Your task to perform on an android device: create a new album in the google photos Image 0: 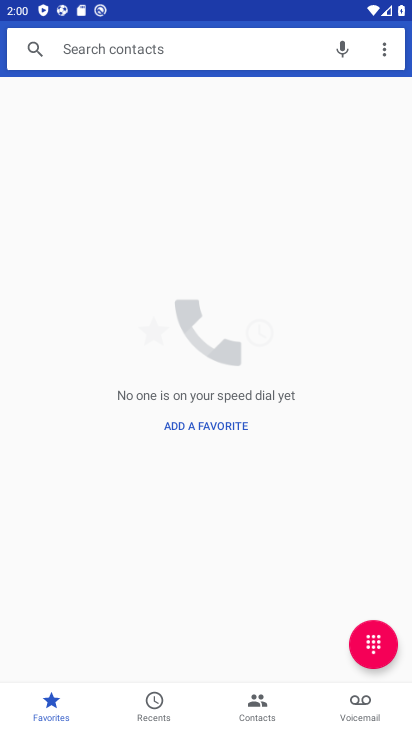
Step 0: press home button
Your task to perform on an android device: create a new album in the google photos Image 1: 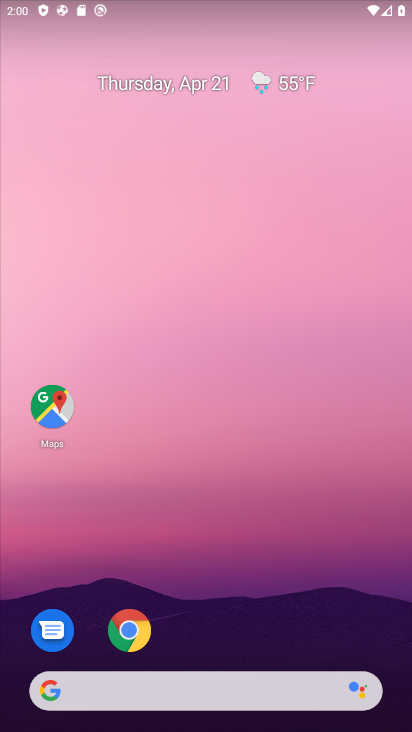
Step 1: drag from (268, 620) to (266, 149)
Your task to perform on an android device: create a new album in the google photos Image 2: 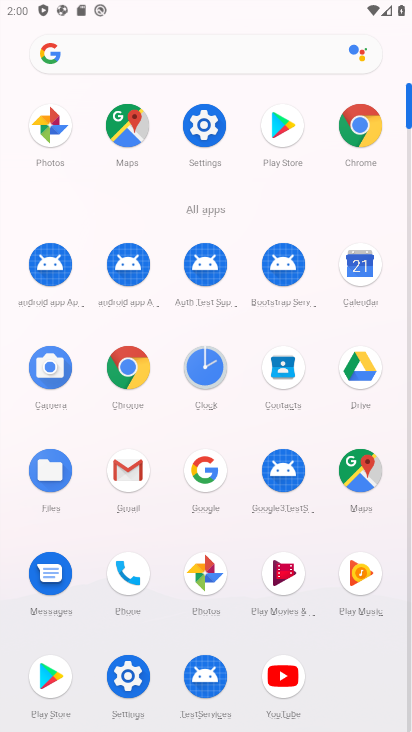
Step 2: click (207, 583)
Your task to perform on an android device: create a new album in the google photos Image 3: 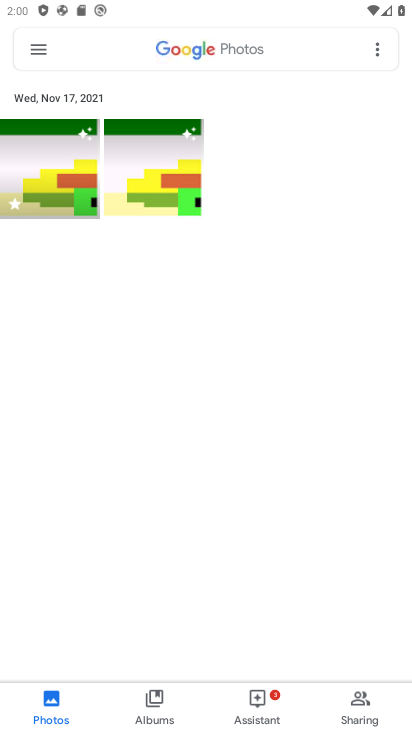
Step 3: click (376, 56)
Your task to perform on an android device: create a new album in the google photos Image 4: 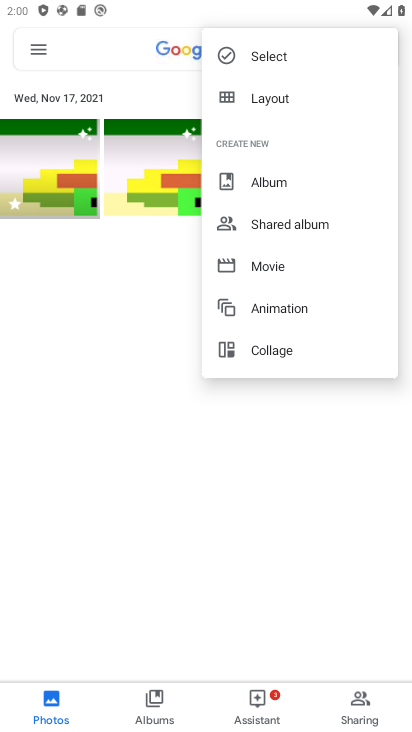
Step 4: click (264, 186)
Your task to perform on an android device: create a new album in the google photos Image 5: 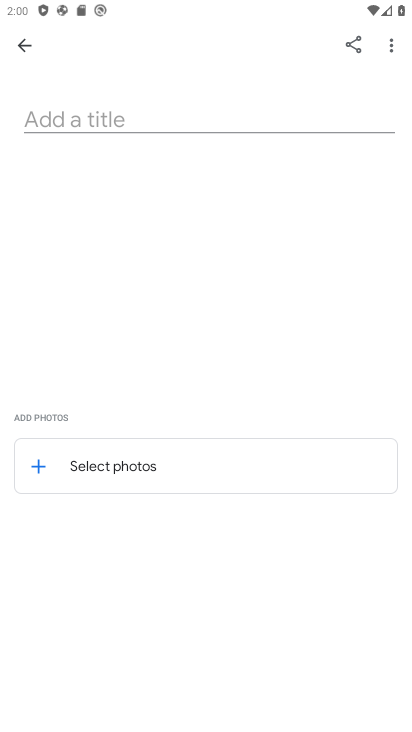
Step 5: click (144, 113)
Your task to perform on an android device: create a new album in the google photos Image 6: 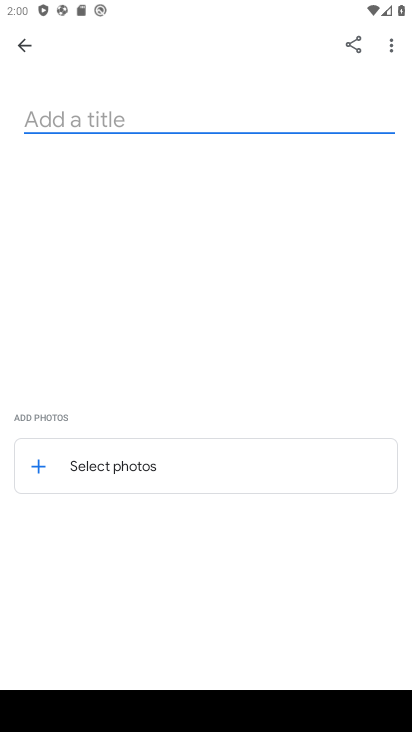
Step 6: type "new1"
Your task to perform on an android device: create a new album in the google photos Image 7: 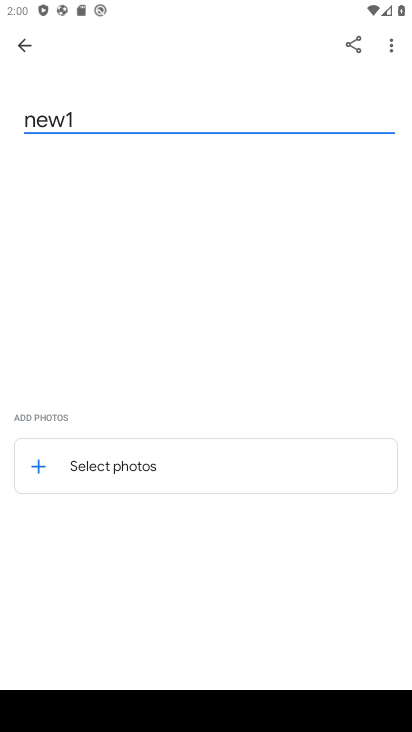
Step 7: click (35, 467)
Your task to perform on an android device: create a new album in the google photos Image 8: 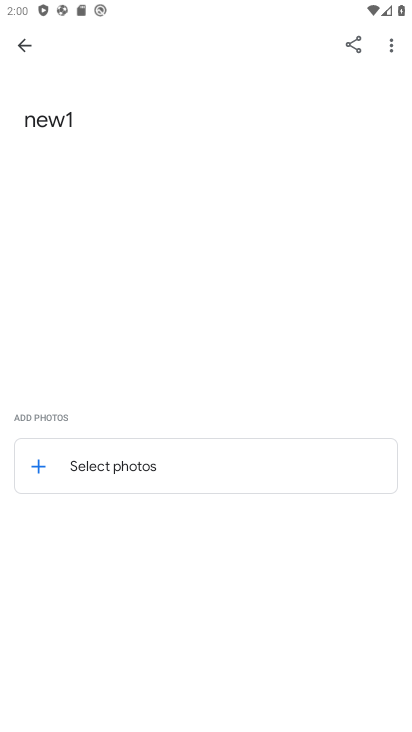
Step 8: click (99, 472)
Your task to perform on an android device: create a new album in the google photos Image 9: 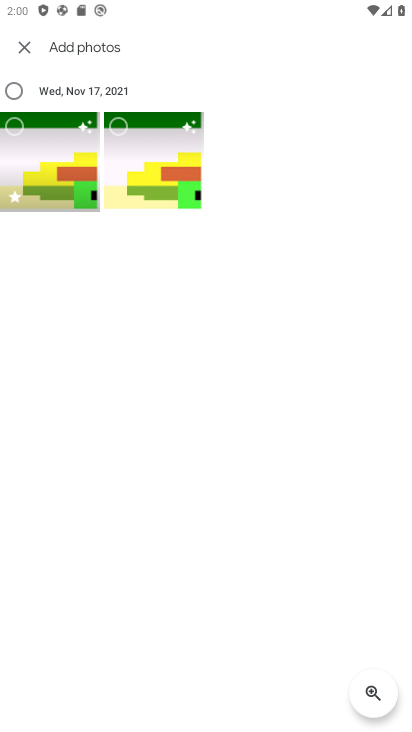
Step 9: click (54, 168)
Your task to perform on an android device: create a new album in the google photos Image 10: 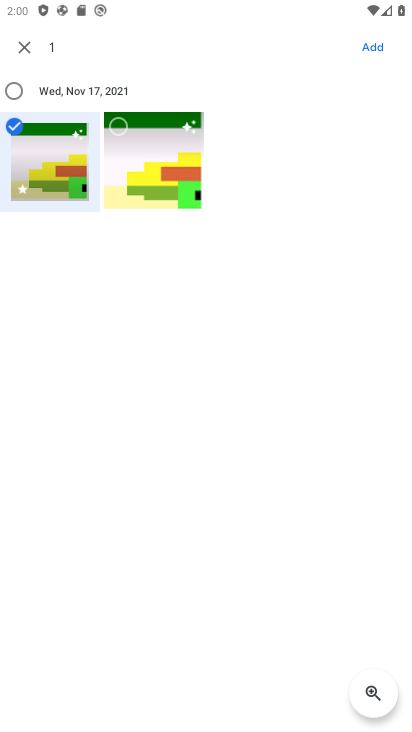
Step 10: click (368, 48)
Your task to perform on an android device: create a new album in the google photos Image 11: 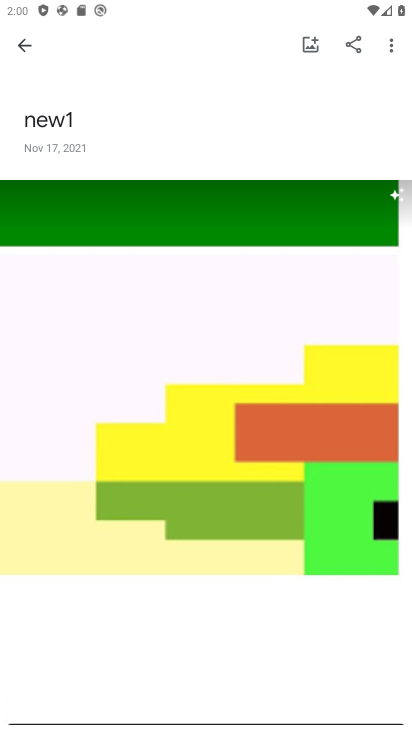
Step 11: task complete